Your task to perform on an android device: Search for vegetarian restaurants on Maps Image 0: 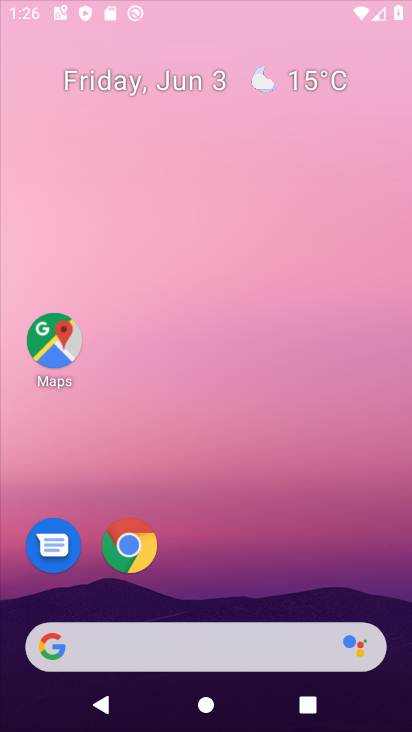
Step 0: click (362, 88)
Your task to perform on an android device: Search for vegetarian restaurants on Maps Image 1: 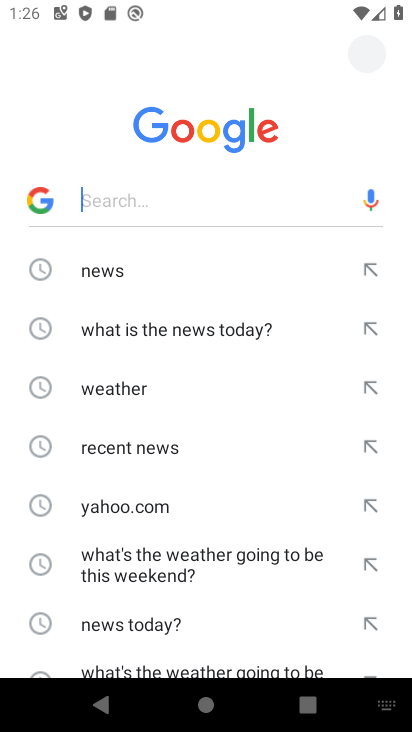
Step 1: press home button
Your task to perform on an android device: Search for vegetarian restaurants on Maps Image 2: 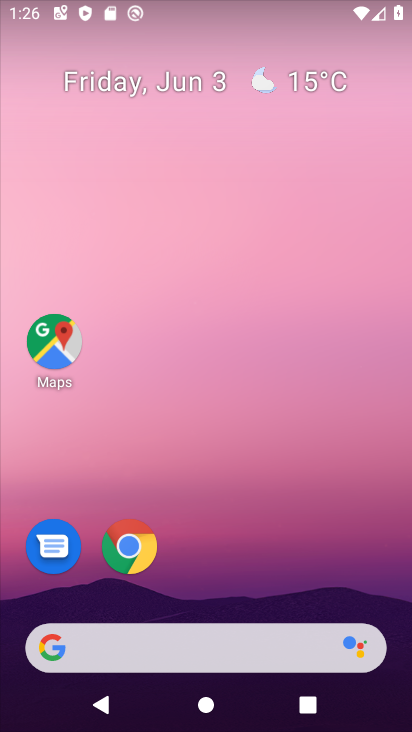
Step 2: drag from (354, 576) to (289, 143)
Your task to perform on an android device: Search for vegetarian restaurants on Maps Image 3: 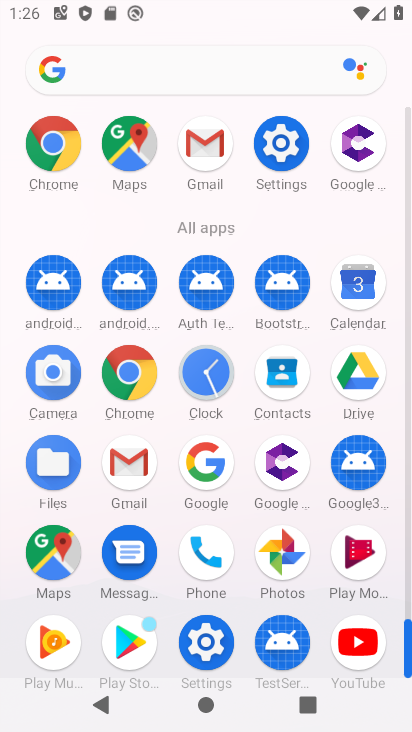
Step 3: click (135, 145)
Your task to perform on an android device: Search for vegetarian restaurants on Maps Image 4: 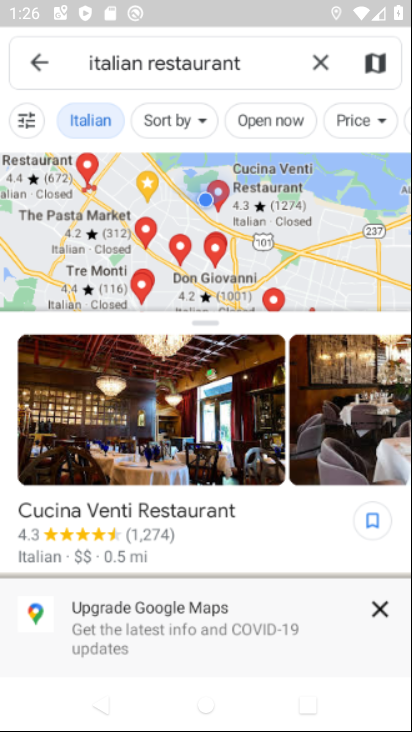
Step 4: click (311, 61)
Your task to perform on an android device: Search for vegetarian restaurants on Maps Image 5: 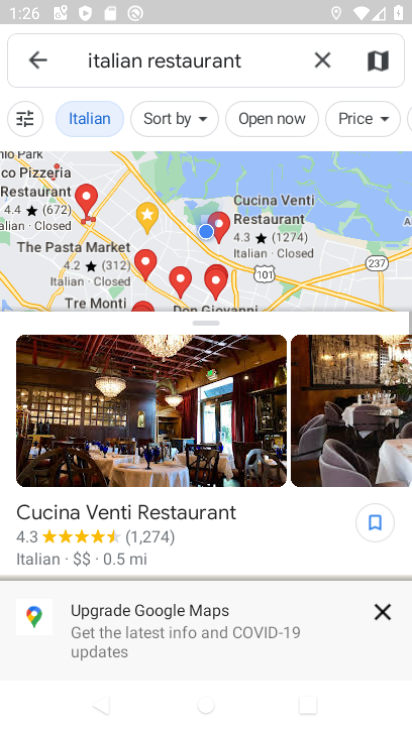
Step 5: click (316, 65)
Your task to perform on an android device: Search for vegetarian restaurants on Maps Image 6: 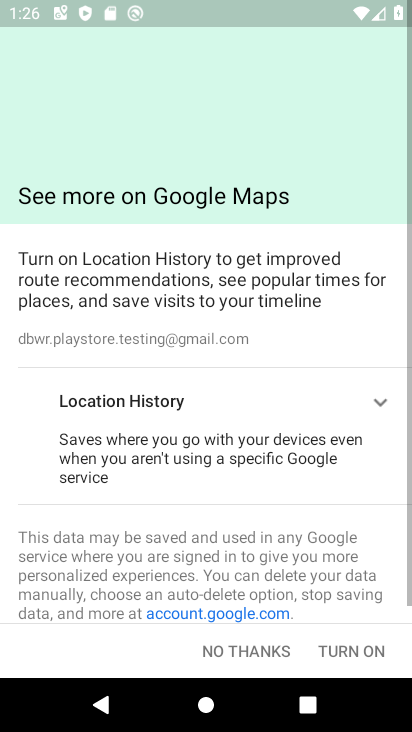
Step 6: click (104, 724)
Your task to perform on an android device: Search for vegetarian restaurants on Maps Image 7: 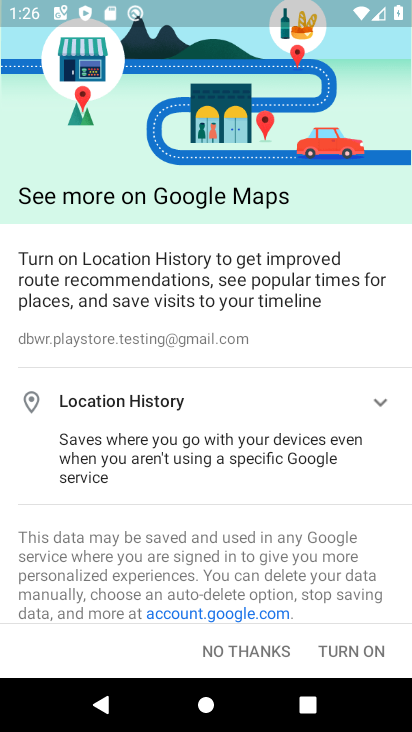
Step 7: click (104, 724)
Your task to perform on an android device: Search for vegetarian restaurants on Maps Image 8: 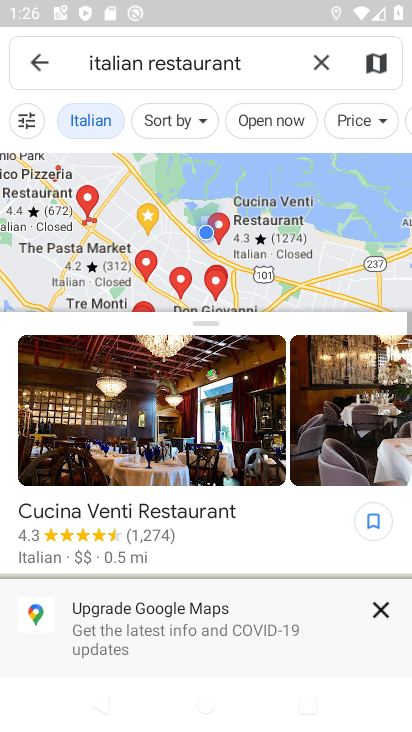
Step 8: click (325, 60)
Your task to perform on an android device: Search for vegetarian restaurants on Maps Image 9: 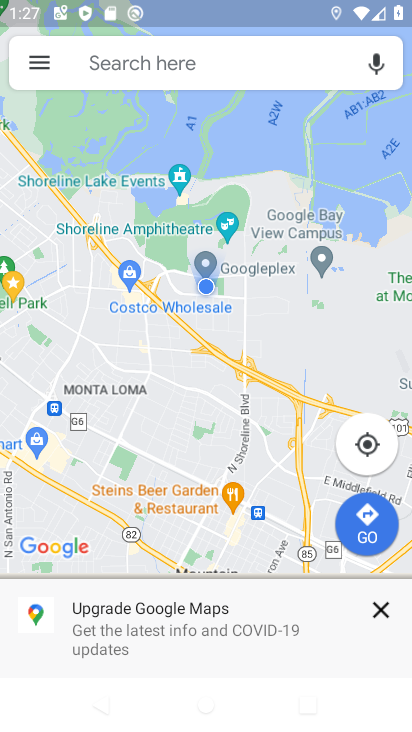
Step 9: click (196, 69)
Your task to perform on an android device: Search for vegetarian restaurants on Maps Image 10: 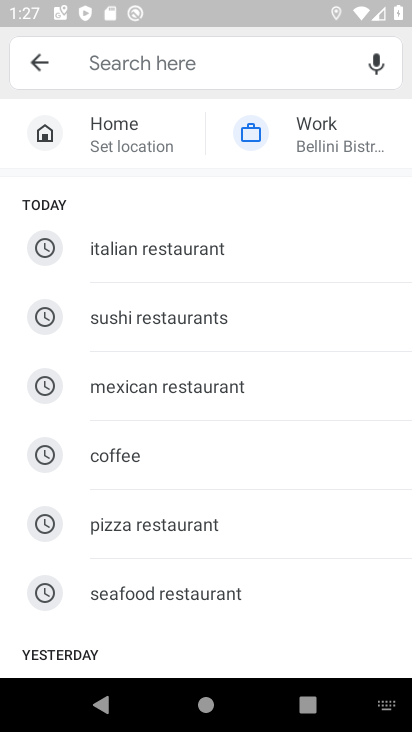
Step 10: type "vegetarian resturents"
Your task to perform on an android device: Search for vegetarian restaurants on Maps Image 11: 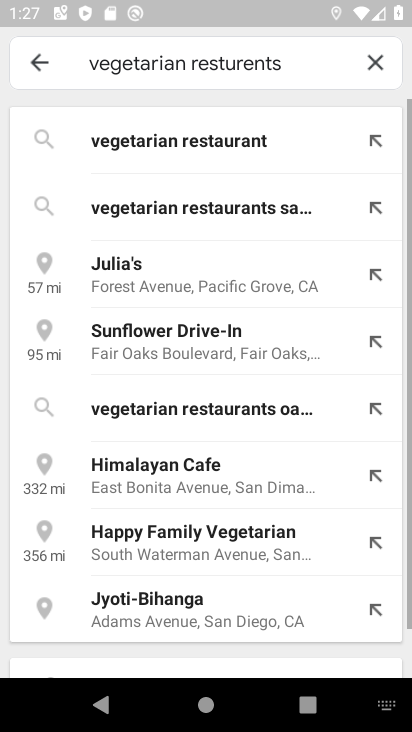
Step 11: click (215, 141)
Your task to perform on an android device: Search for vegetarian restaurants on Maps Image 12: 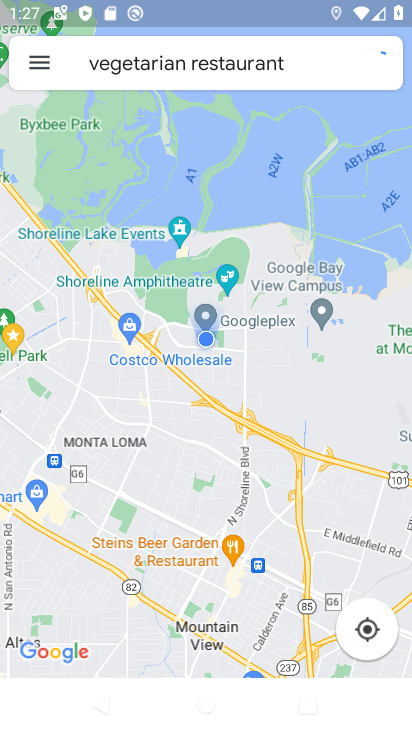
Step 12: task complete